Your task to perform on an android device: Go to Google Image 0: 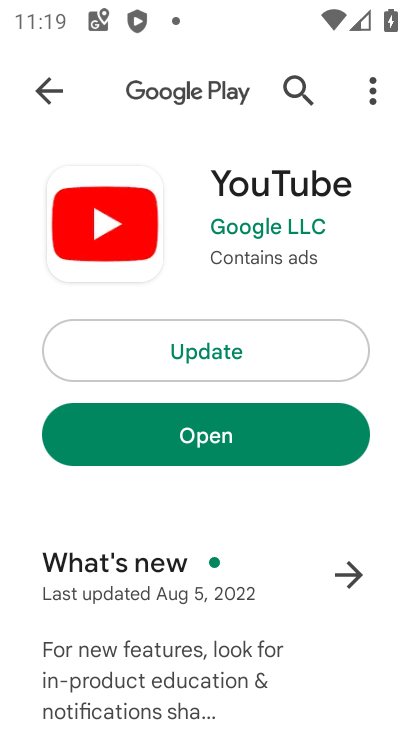
Step 0: click (41, 84)
Your task to perform on an android device: Go to Google Image 1: 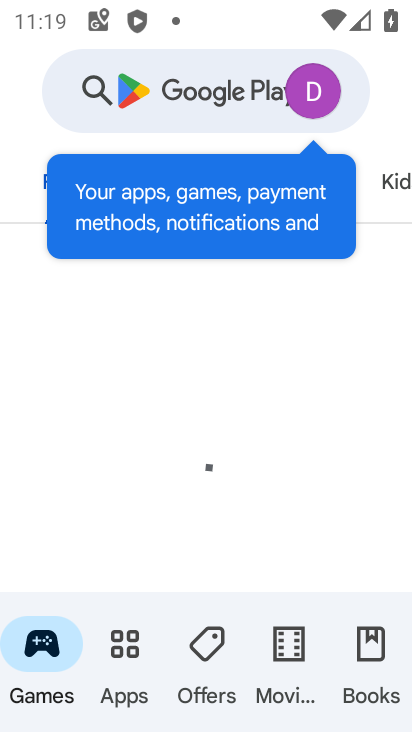
Step 1: press back button
Your task to perform on an android device: Go to Google Image 2: 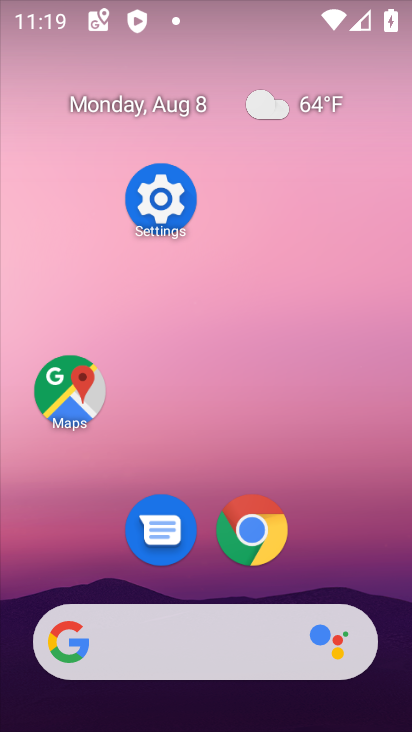
Step 2: drag from (202, 500) to (183, 168)
Your task to perform on an android device: Go to Google Image 3: 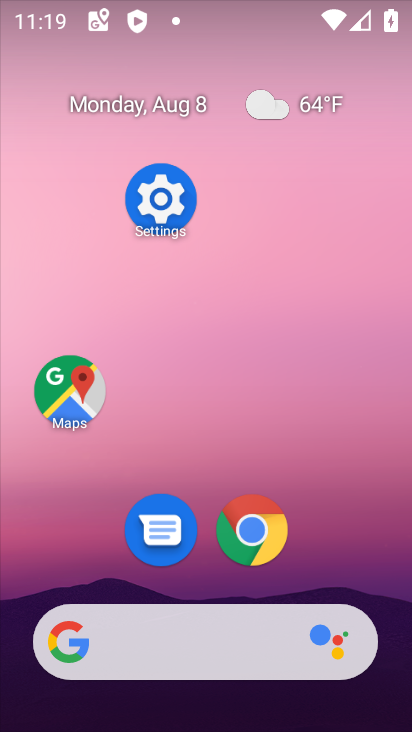
Step 3: drag from (216, 619) to (203, 188)
Your task to perform on an android device: Go to Google Image 4: 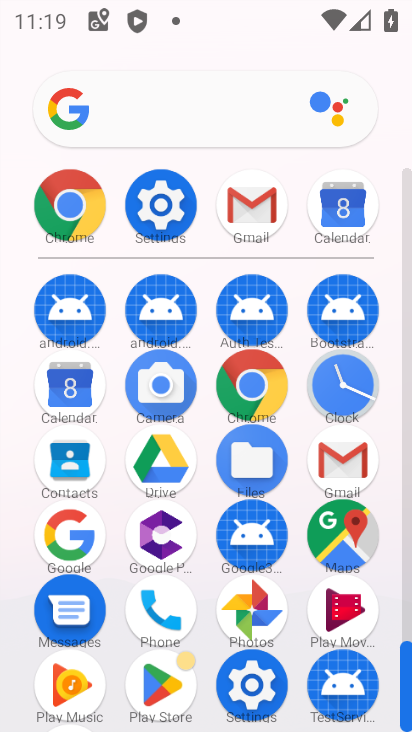
Step 4: click (70, 542)
Your task to perform on an android device: Go to Google Image 5: 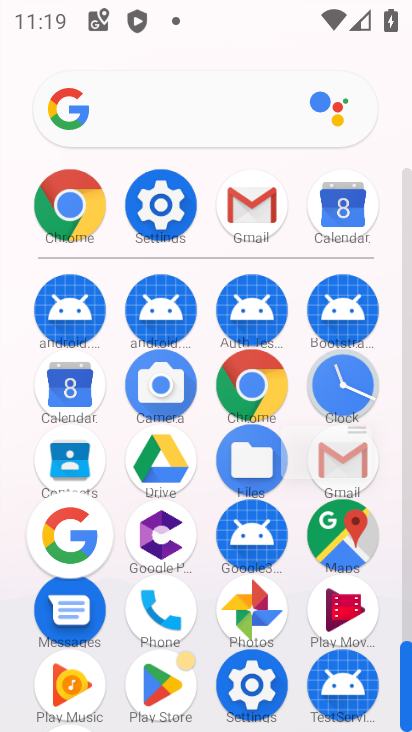
Step 5: click (70, 542)
Your task to perform on an android device: Go to Google Image 6: 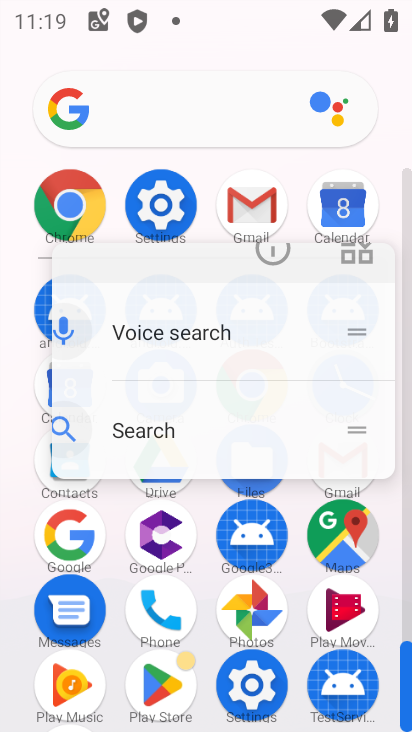
Step 6: click (71, 542)
Your task to perform on an android device: Go to Google Image 7: 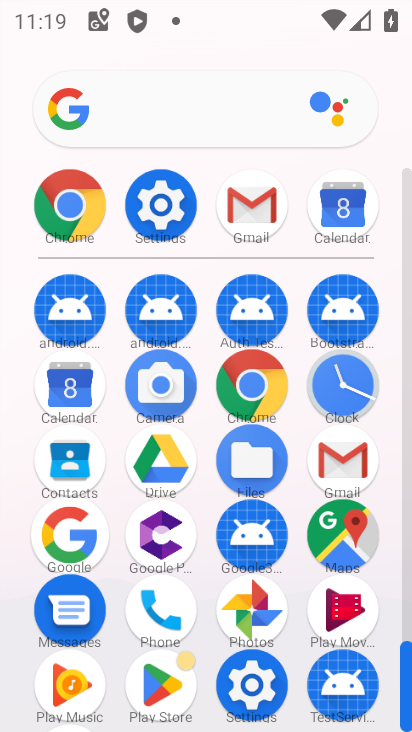
Step 7: click (72, 542)
Your task to perform on an android device: Go to Google Image 8: 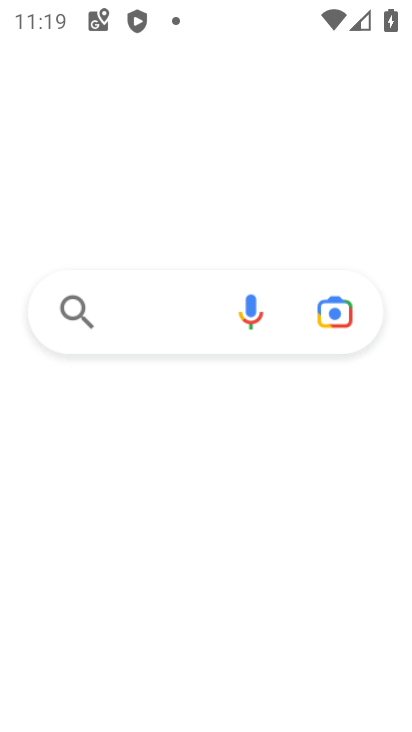
Step 8: click (75, 542)
Your task to perform on an android device: Go to Google Image 9: 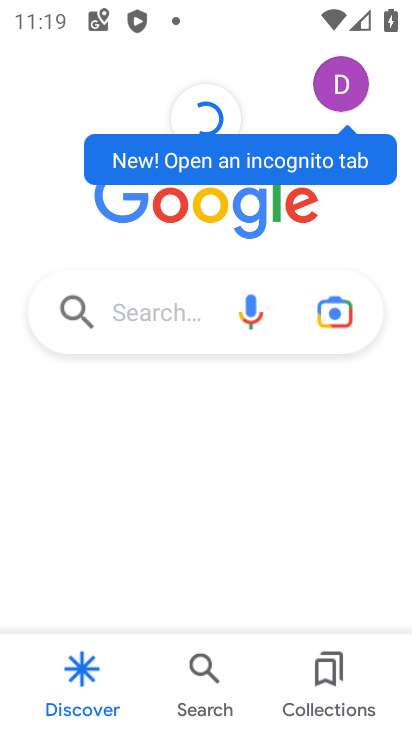
Step 9: task complete